Your task to perform on an android device: open chrome privacy settings Image 0: 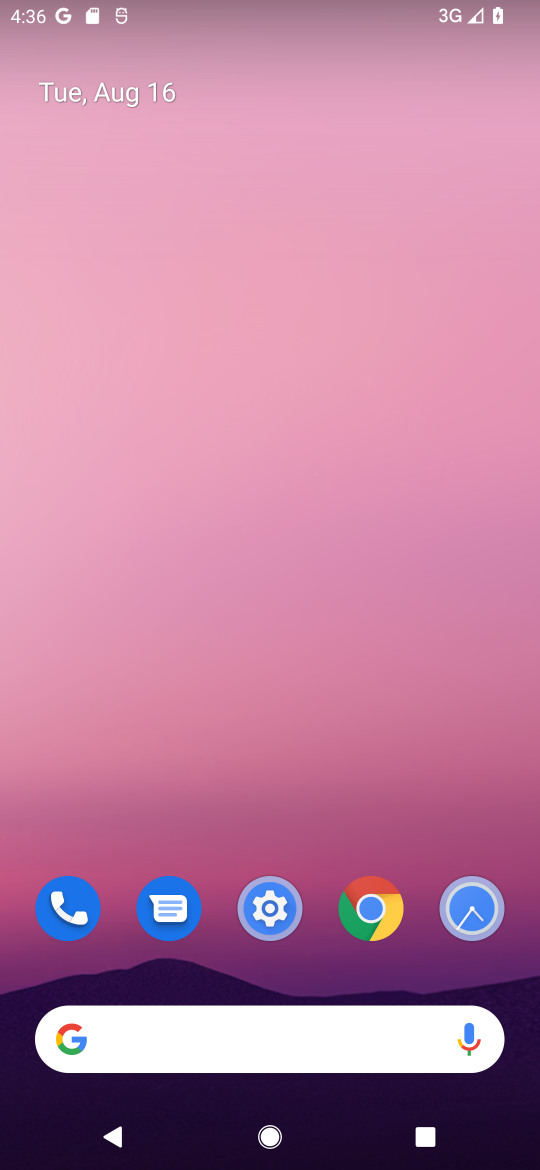
Step 0: click (354, 919)
Your task to perform on an android device: open chrome privacy settings Image 1: 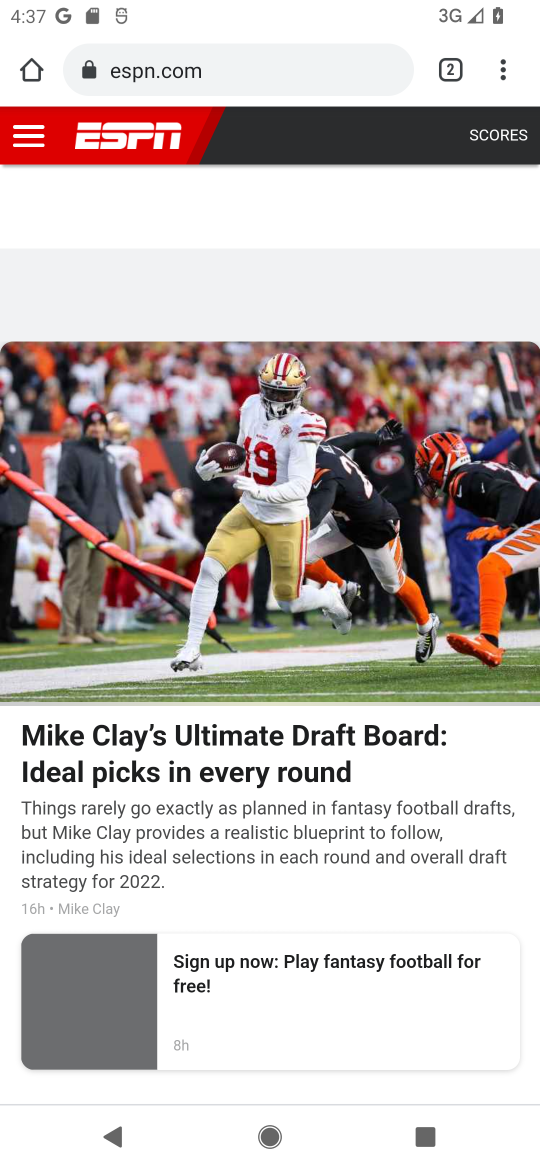
Step 1: drag from (502, 67) to (325, 937)
Your task to perform on an android device: open chrome privacy settings Image 2: 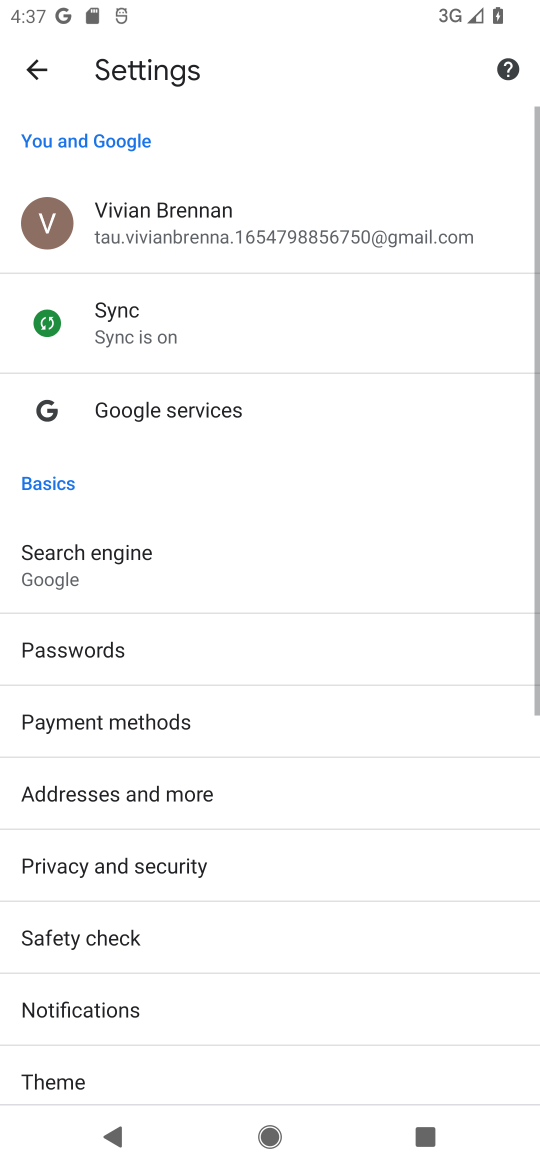
Step 2: drag from (196, 1005) to (372, 269)
Your task to perform on an android device: open chrome privacy settings Image 3: 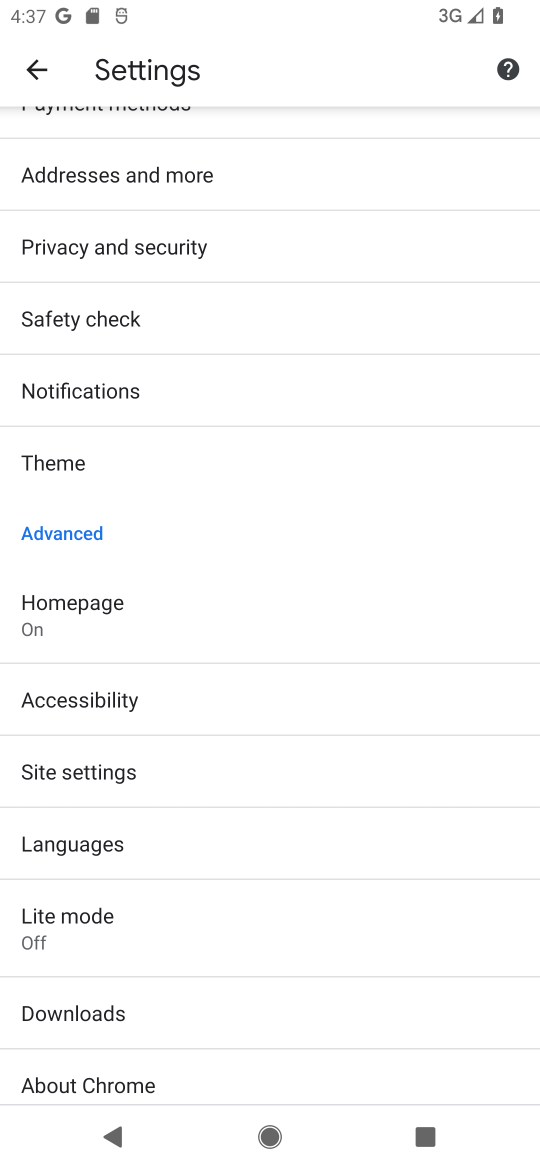
Step 3: drag from (154, 900) to (322, 247)
Your task to perform on an android device: open chrome privacy settings Image 4: 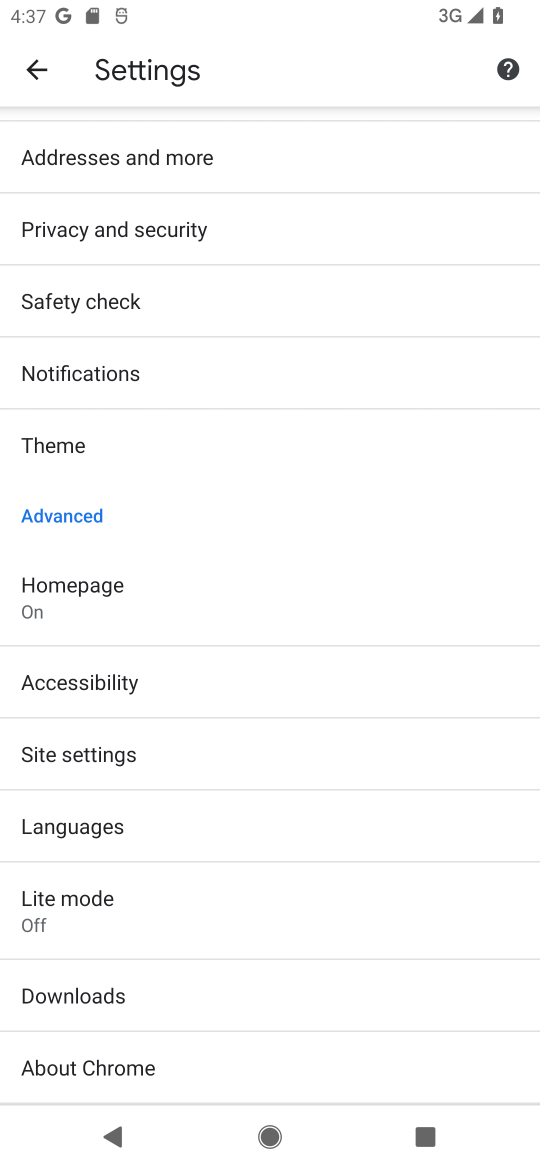
Step 4: drag from (333, 364) to (444, 553)
Your task to perform on an android device: open chrome privacy settings Image 5: 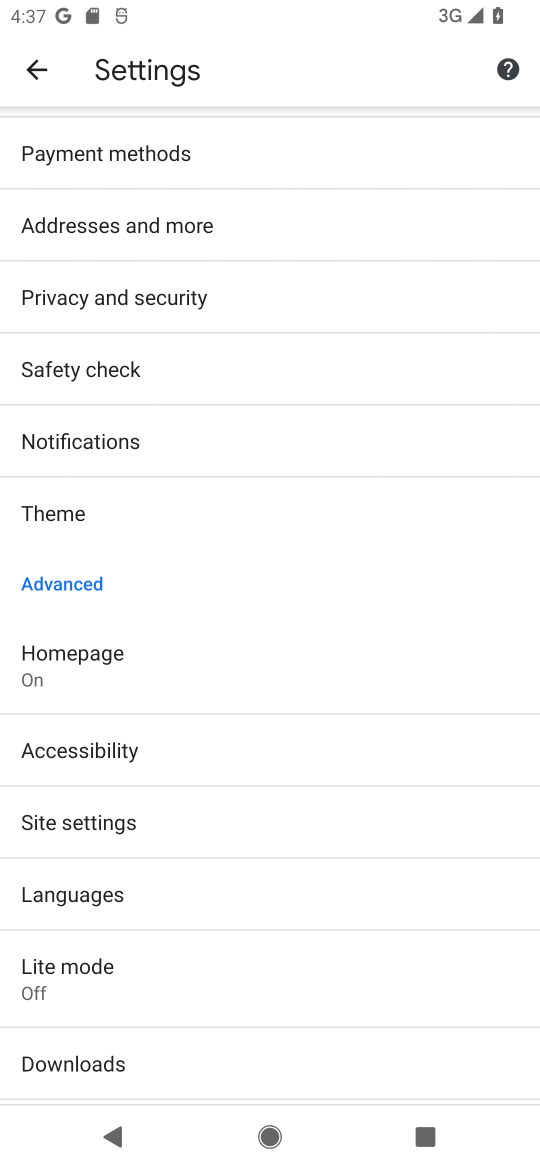
Step 5: press back button
Your task to perform on an android device: open chrome privacy settings Image 6: 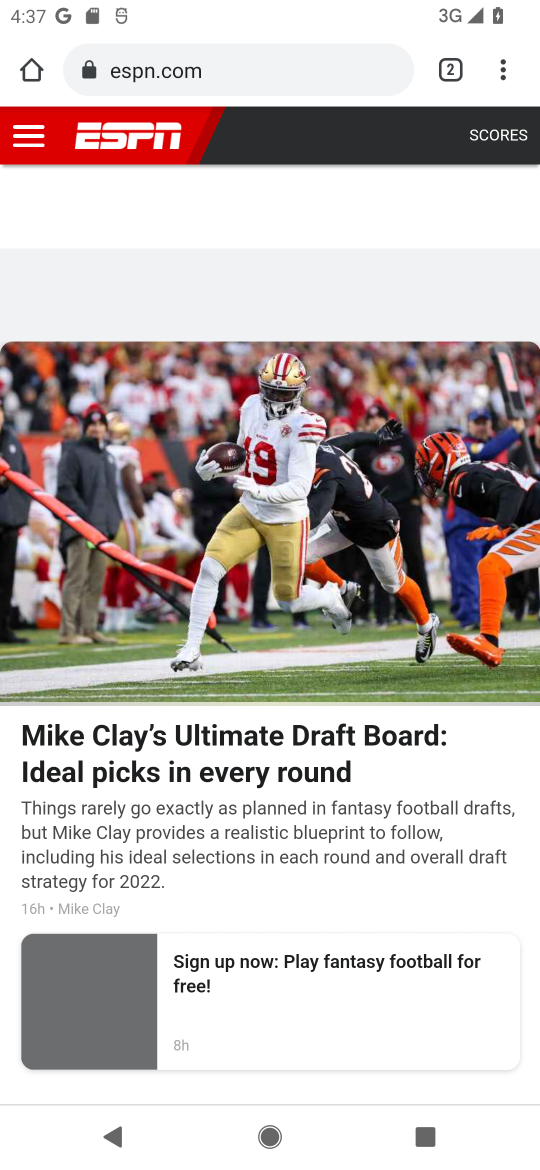
Step 6: drag from (502, 63) to (328, 947)
Your task to perform on an android device: open chrome privacy settings Image 7: 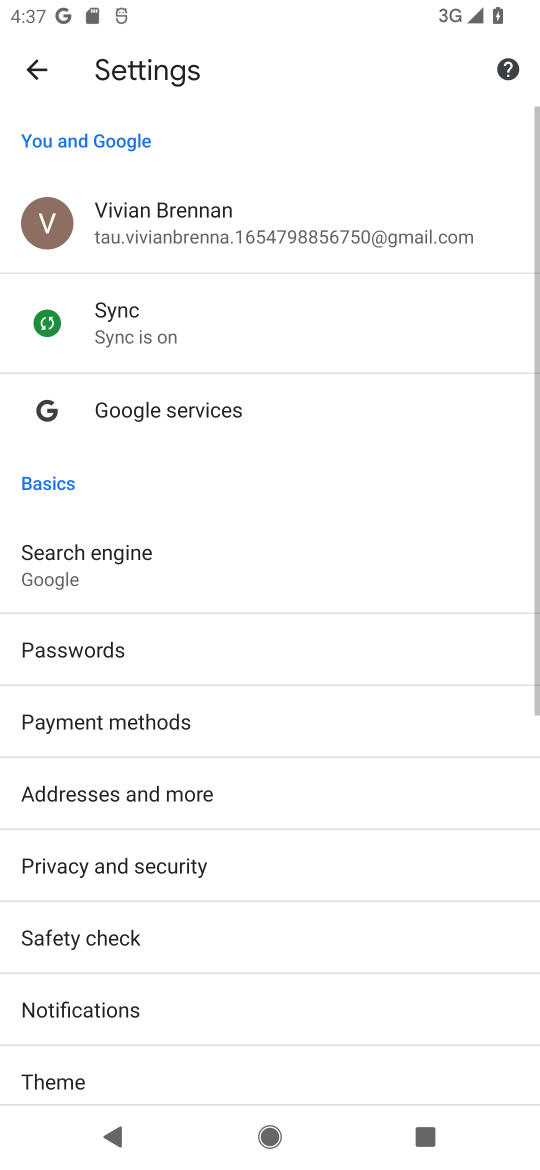
Step 7: drag from (166, 966) to (401, 256)
Your task to perform on an android device: open chrome privacy settings Image 8: 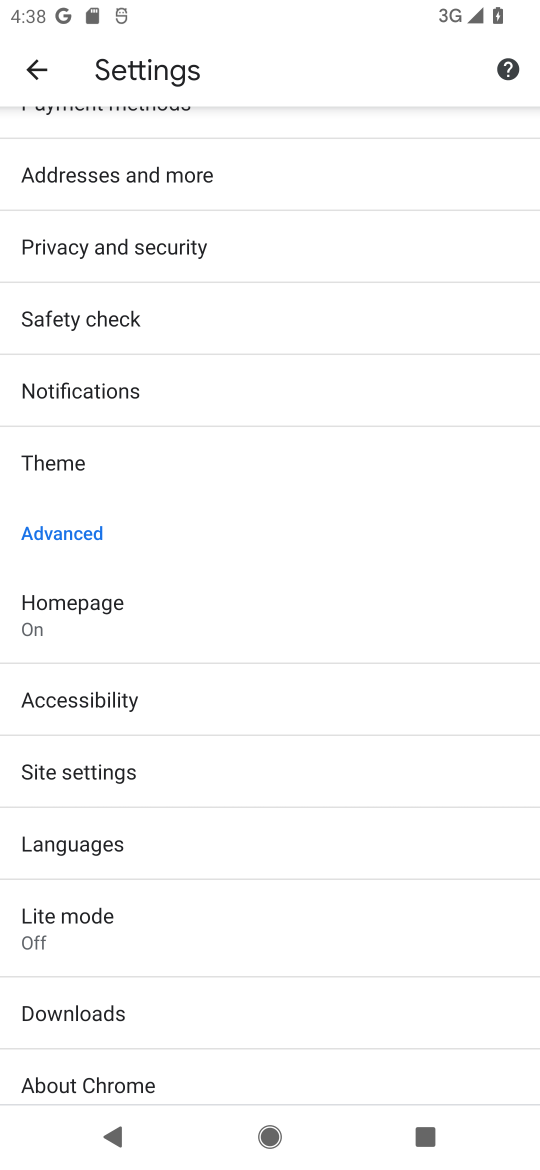
Step 8: click (158, 767)
Your task to perform on an android device: open chrome privacy settings Image 9: 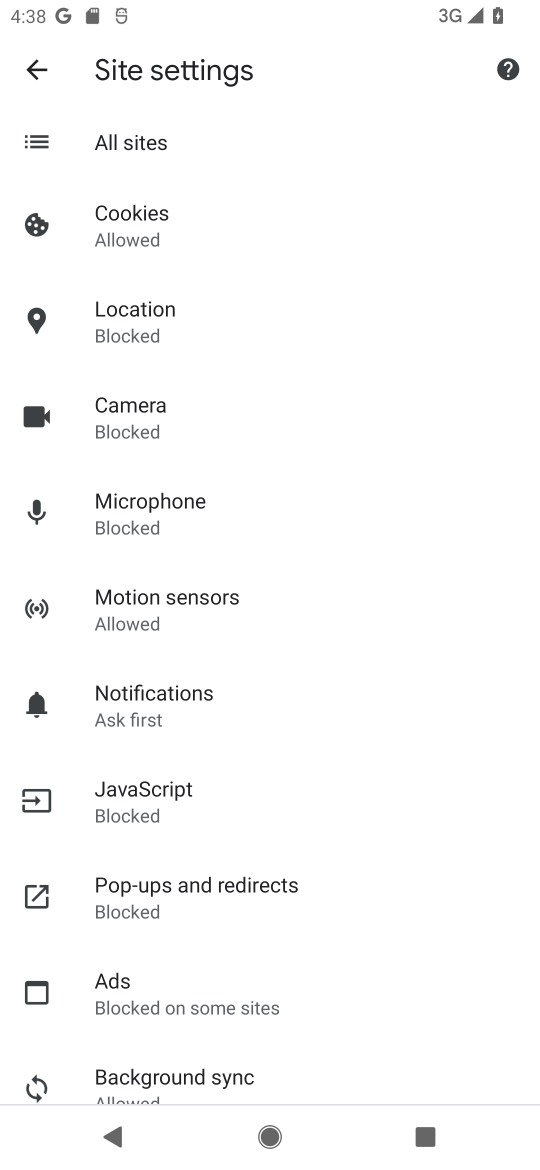
Step 9: task complete